Your task to perform on an android device: toggle sleep mode Image 0: 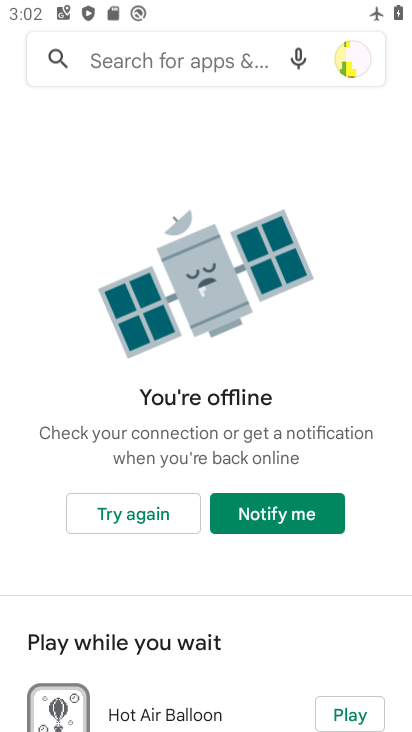
Step 0: task impossible